Your task to perform on an android device: move a message to another label in the gmail app Image 0: 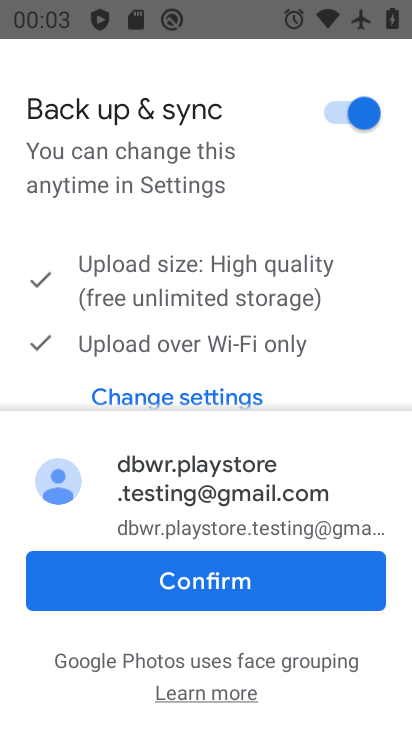
Step 0: press home button
Your task to perform on an android device: move a message to another label in the gmail app Image 1: 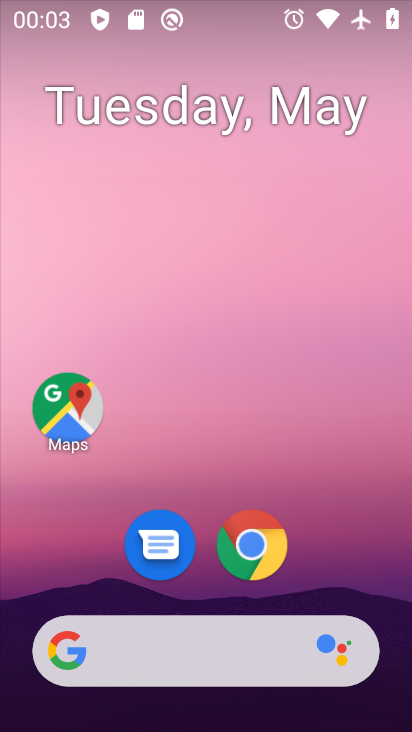
Step 1: drag from (312, 598) to (340, 0)
Your task to perform on an android device: move a message to another label in the gmail app Image 2: 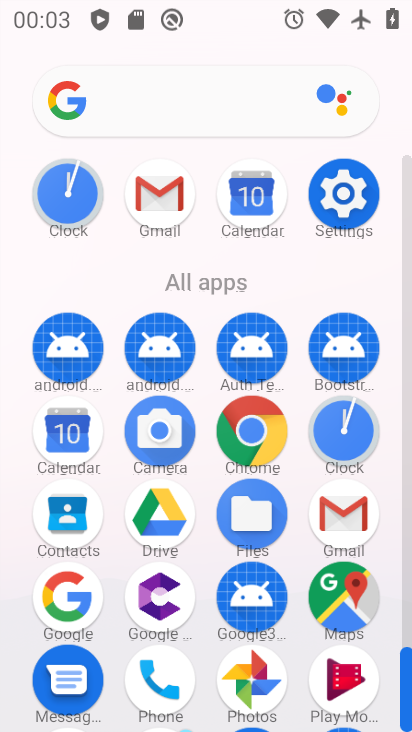
Step 2: click (148, 185)
Your task to perform on an android device: move a message to another label in the gmail app Image 3: 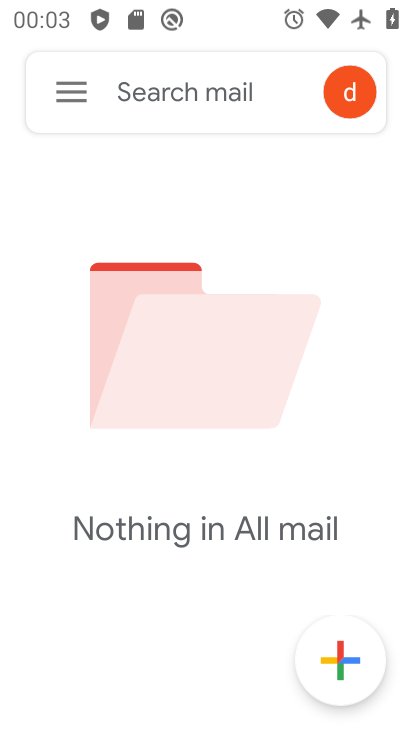
Step 3: task complete